Your task to perform on an android device: Open the map Image 0: 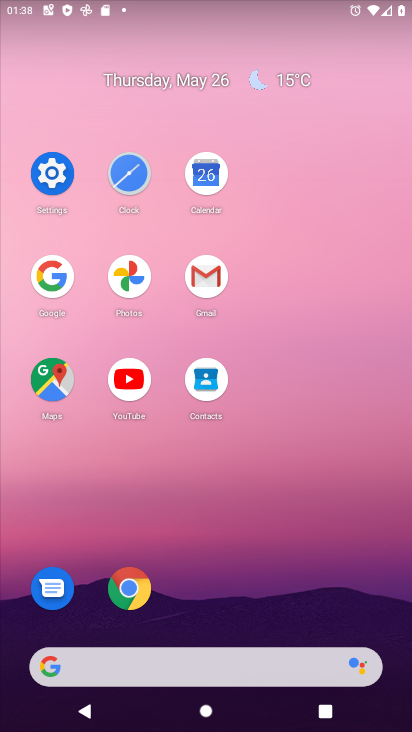
Step 0: click (50, 388)
Your task to perform on an android device: Open the map Image 1: 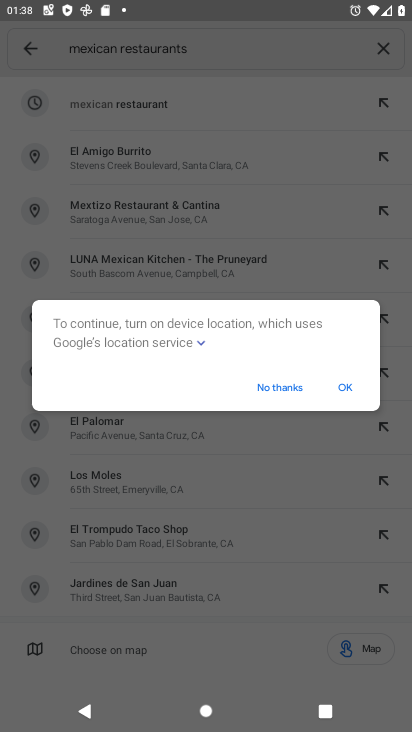
Step 1: task complete